Your task to perform on an android device: open device folders in google photos Image 0: 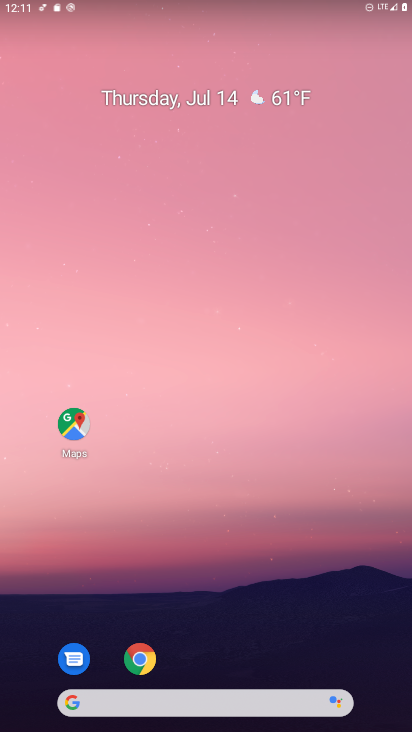
Step 0: drag from (362, 638) to (303, 94)
Your task to perform on an android device: open device folders in google photos Image 1: 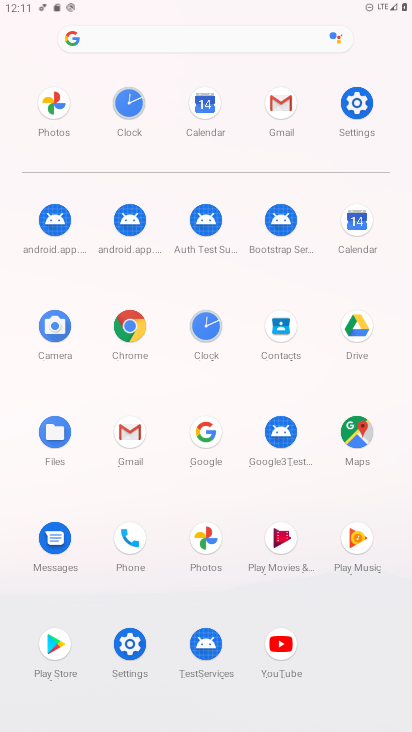
Step 1: click (206, 538)
Your task to perform on an android device: open device folders in google photos Image 2: 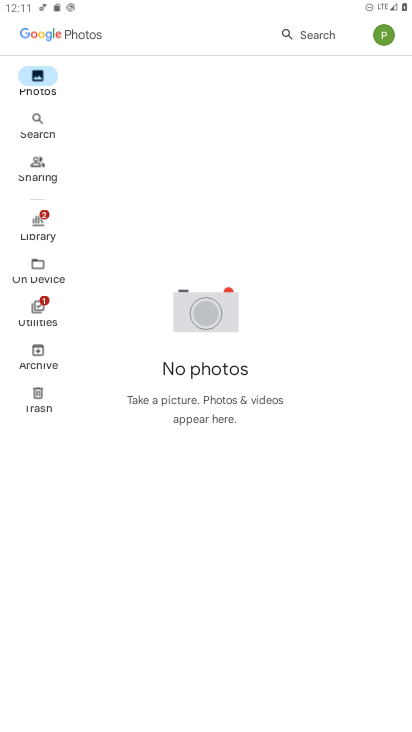
Step 2: click (35, 269)
Your task to perform on an android device: open device folders in google photos Image 3: 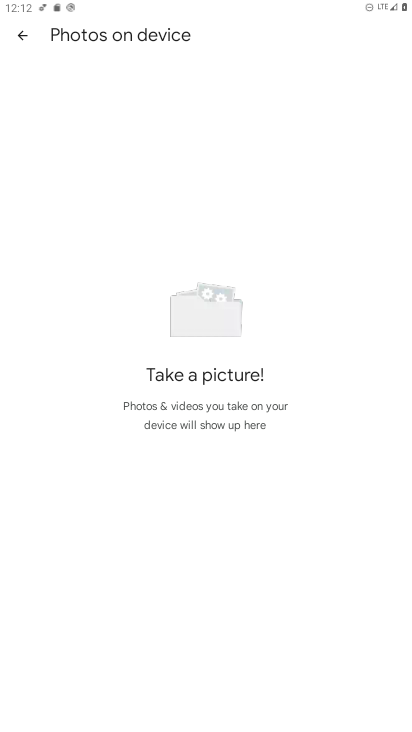
Step 3: task complete